Your task to perform on an android device: install app "Calculator" Image 0: 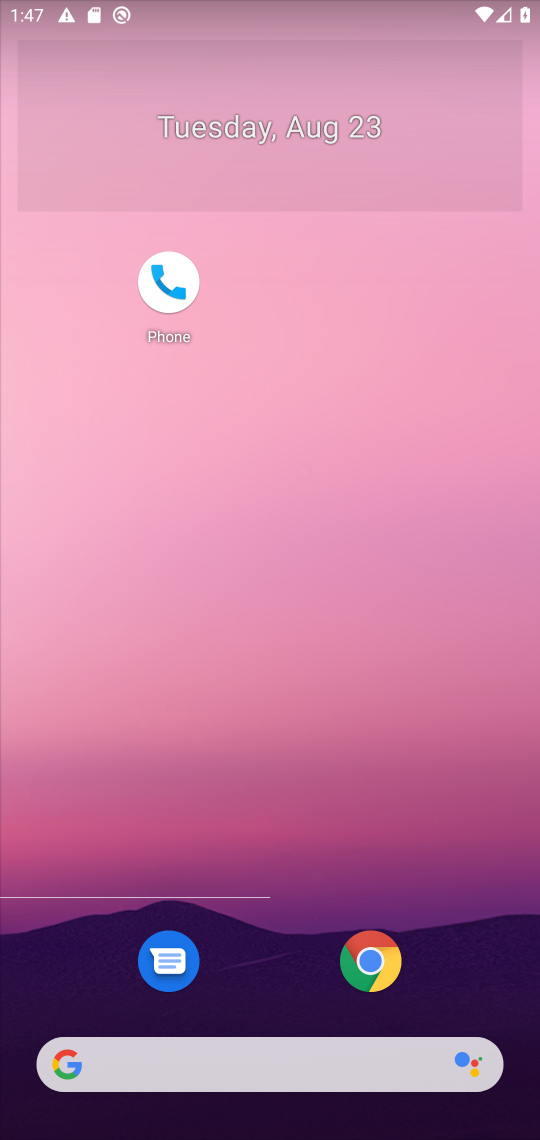
Step 0: drag from (285, 1016) to (428, 74)
Your task to perform on an android device: install app "Calculator" Image 1: 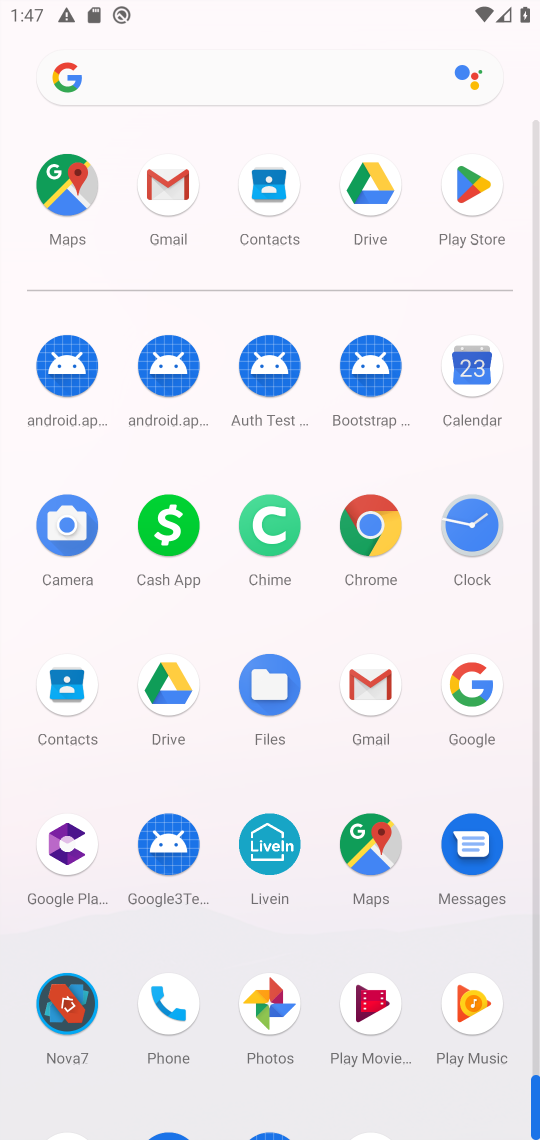
Step 1: click (471, 196)
Your task to perform on an android device: install app "Calculator" Image 2: 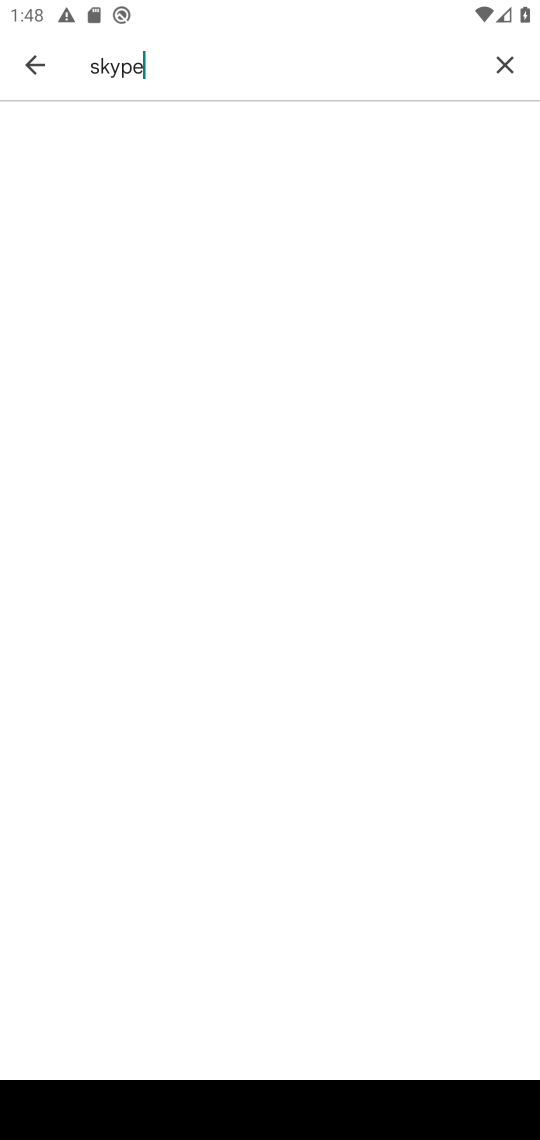
Step 2: click (505, 70)
Your task to perform on an android device: install app "Calculator" Image 3: 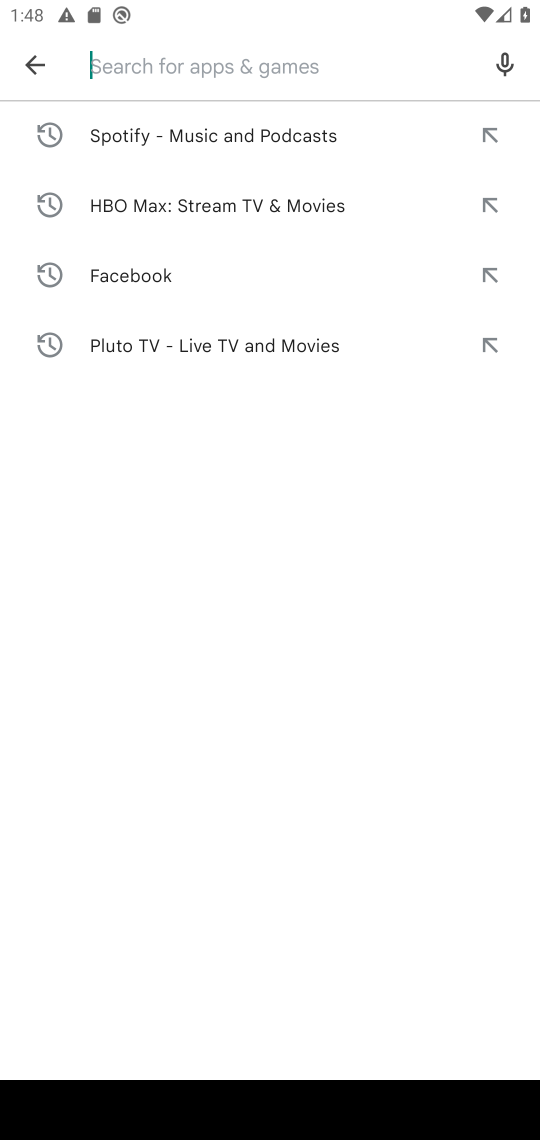
Step 3: task complete